Your task to perform on an android device: Check the news Image 0: 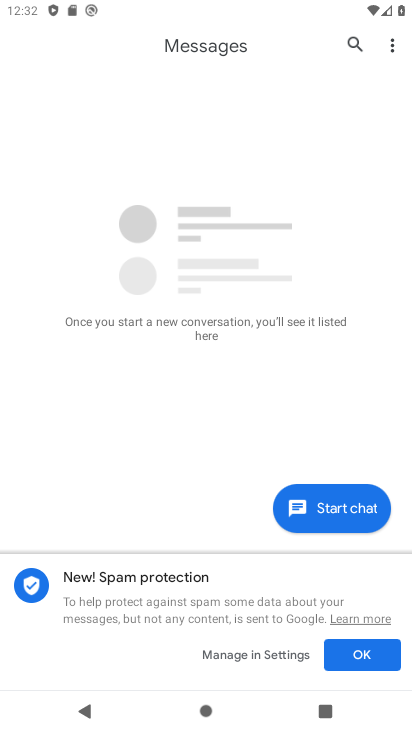
Step 0: press home button
Your task to perform on an android device: Check the news Image 1: 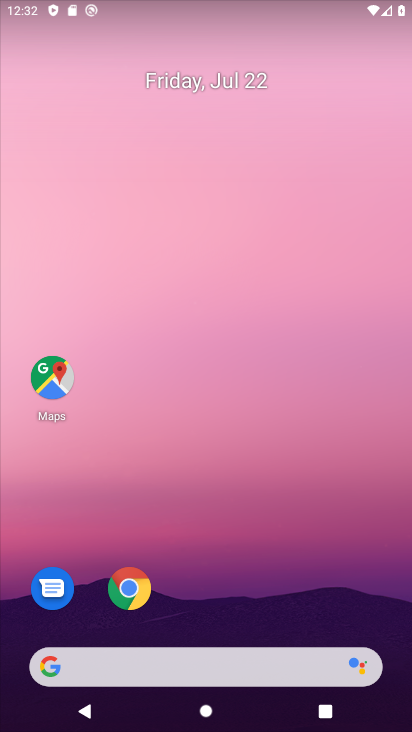
Step 1: click (176, 652)
Your task to perform on an android device: Check the news Image 2: 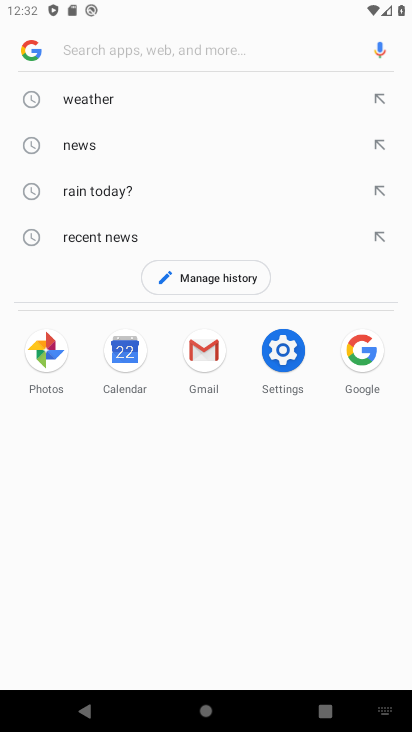
Step 2: click (84, 142)
Your task to perform on an android device: Check the news Image 3: 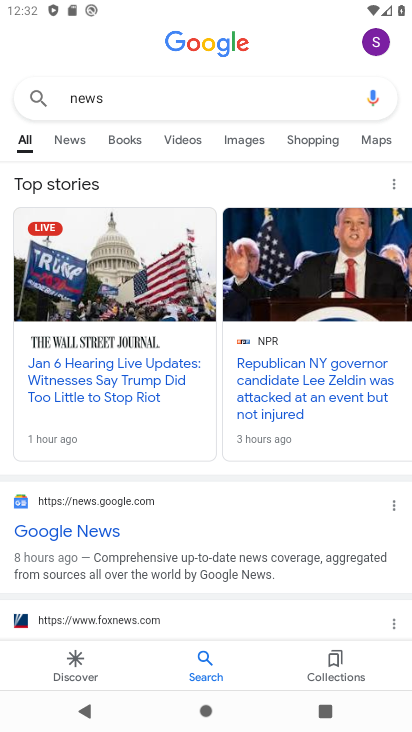
Step 3: task complete